Your task to perform on an android device: Go to Yahoo.com Image 0: 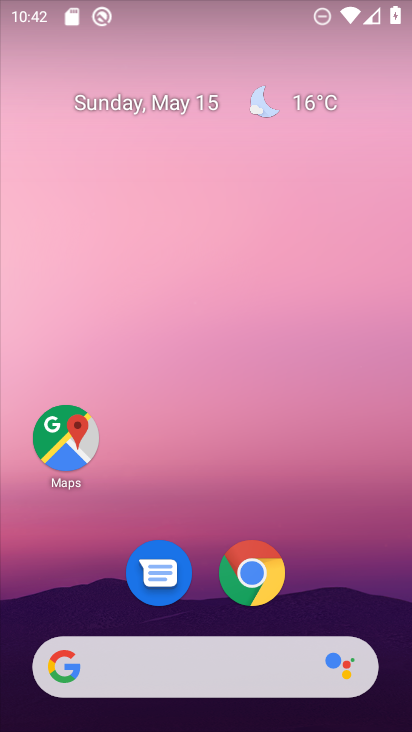
Step 0: drag from (364, 374) to (361, 8)
Your task to perform on an android device: Go to Yahoo.com Image 1: 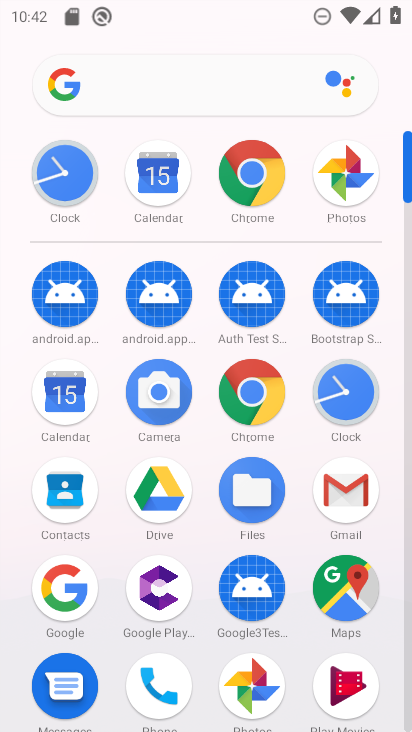
Step 1: click (244, 146)
Your task to perform on an android device: Go to Yahoo.com Image 2: 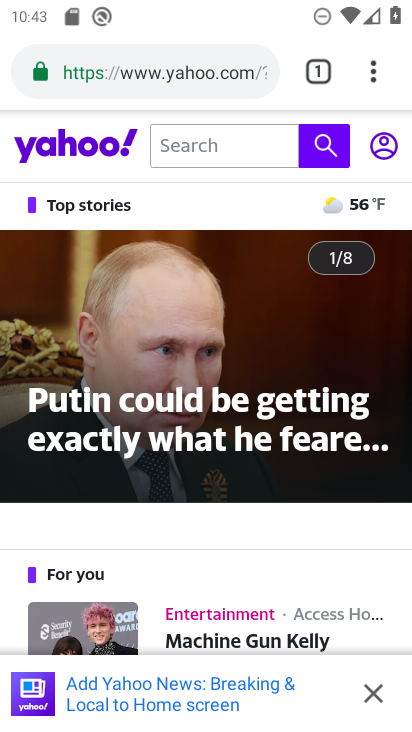
Step 2: task complete